Your task to perform on an android device: Go to Google Image 0: 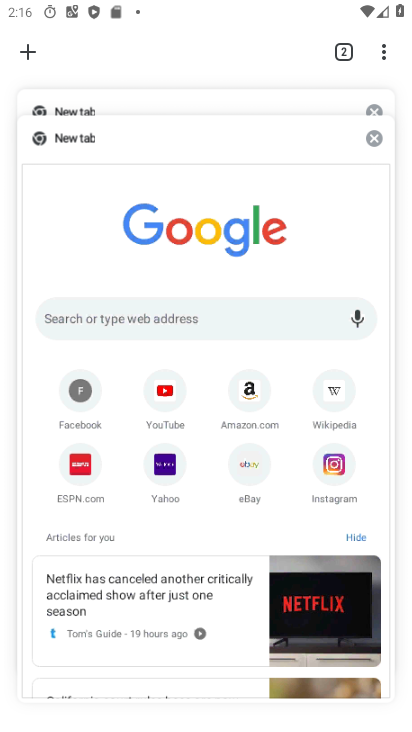
Step 0: click (281, 200)
Your task to perform on an android device: Go to Google Image 1: 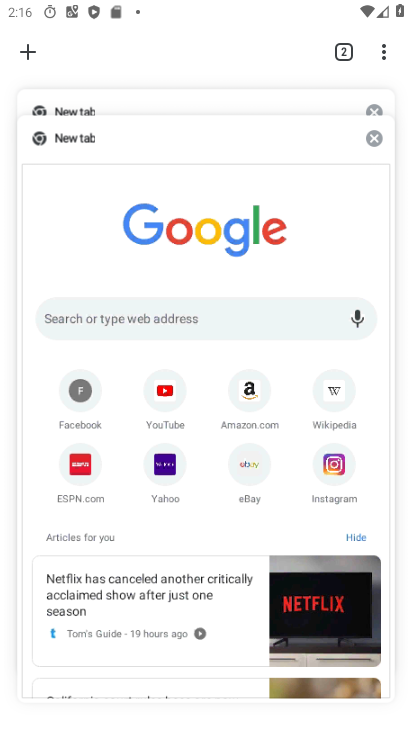
Step 1: press home button
Your task to perform on an android device: Go to Google Image 2: 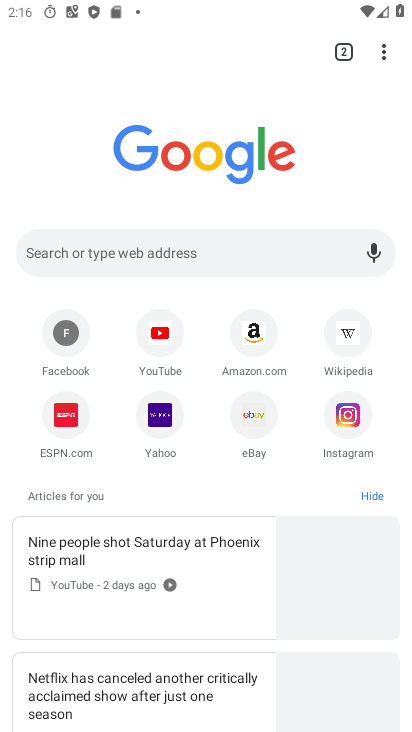
Step 2: drag from (213, 483) to (239, 228)
Your task to perform on an android device: Go to Google Image 3: 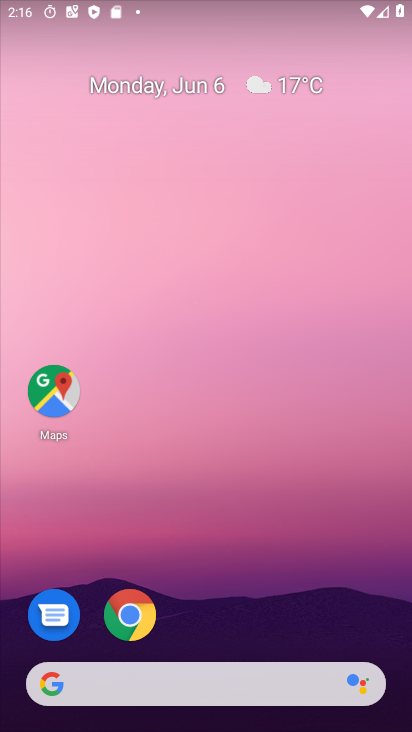
Step 3: drag from (164, 534) to (180, 58)
Your task to perform on an android device: Go to Google Image 4: 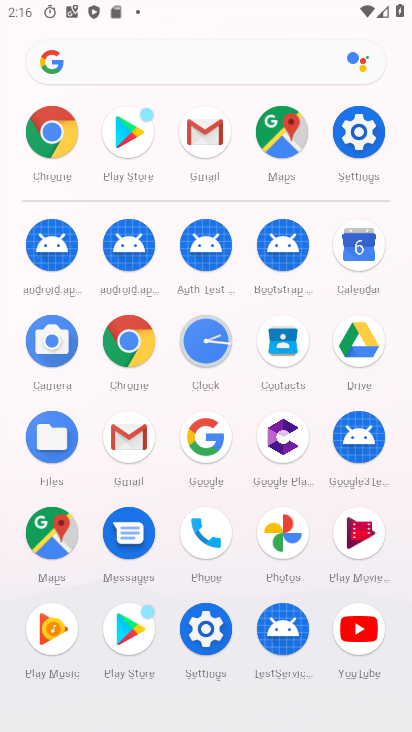
Step 4: click (197, 432)
Your task to perform on an android device: Go to Google Image 5: 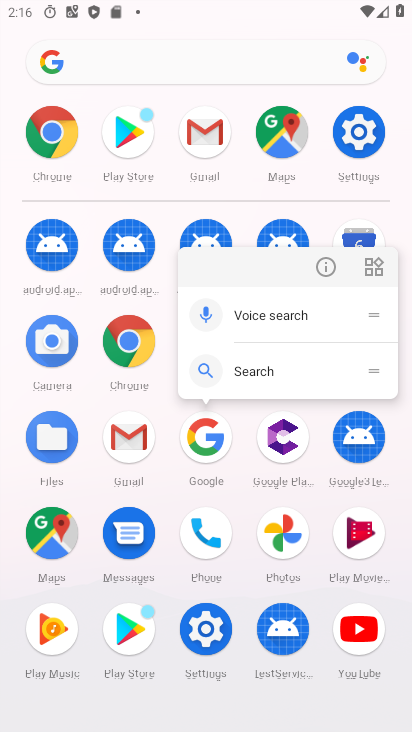
Step 5: click (322, 260)
Your task to perform on an android device: Go to Google Image 6: 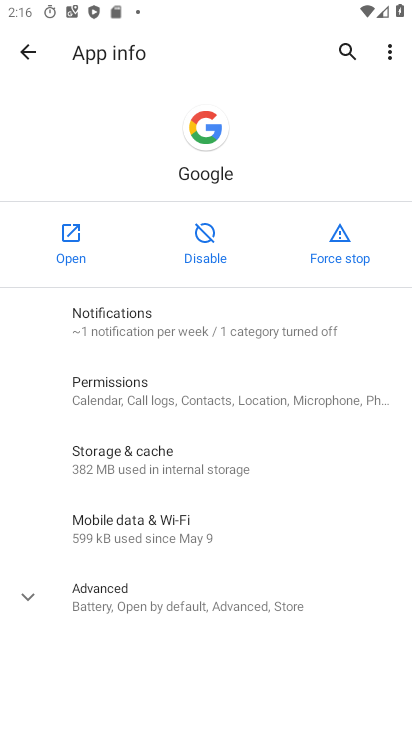
Step 6: click (61, 245)
Your task to perform on an android device: Go to Google Image 7: 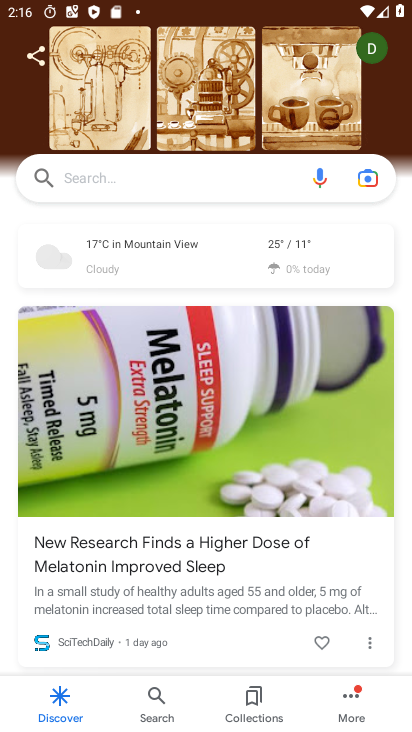
Step 7: task complete